Your task to perform on an android device: empty trash in the gmail app Image 0: 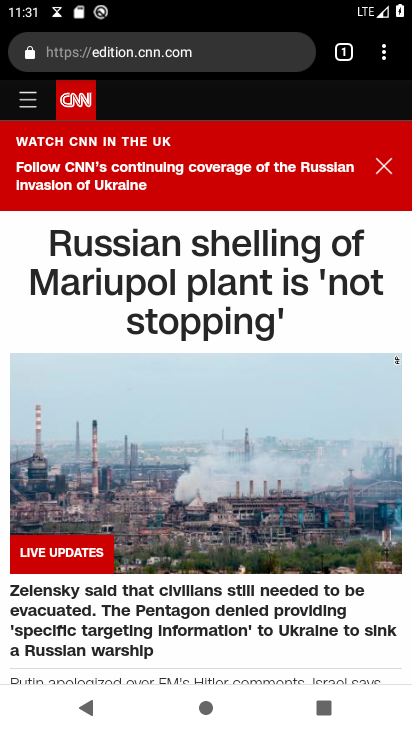
Step 0: press home button
Your task to perform on an android device: empty trash in the gmail app Image 1: 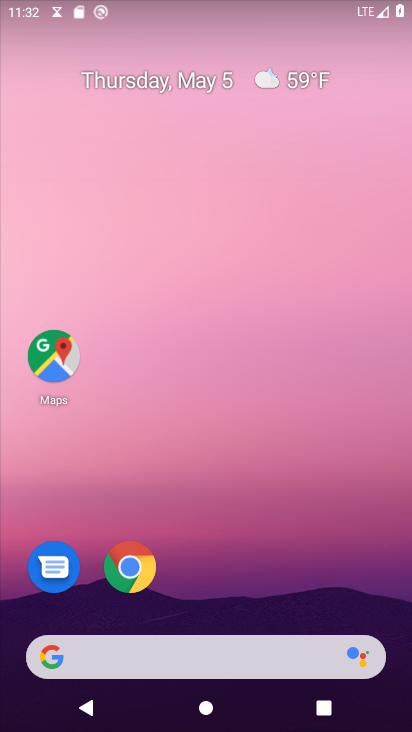
Step 1: drag from (305, 608) to (303, 2)
Your task to perform on an android device: empty trash in the gmail app Image 2: 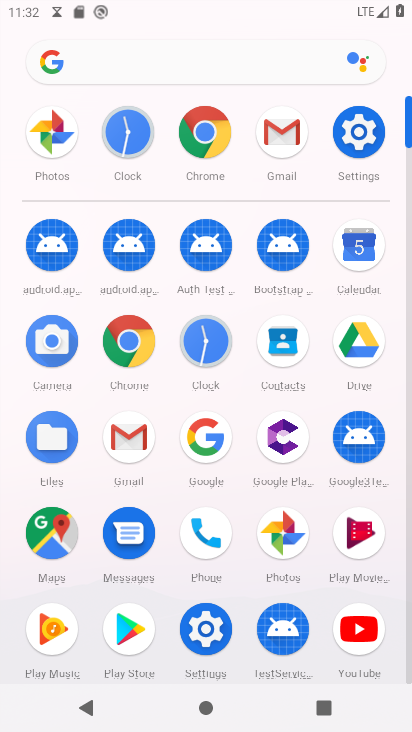
Step 2: click (286, 136)
Your task to perform on an android device: empty trash in the gmail app Image 3: 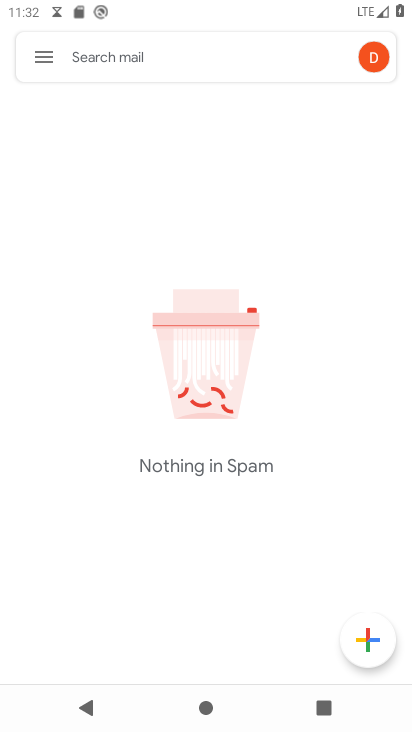
Step 3: click (45, 58)
Your task to perform on an android device: empty trash in the gmail app Image 4: 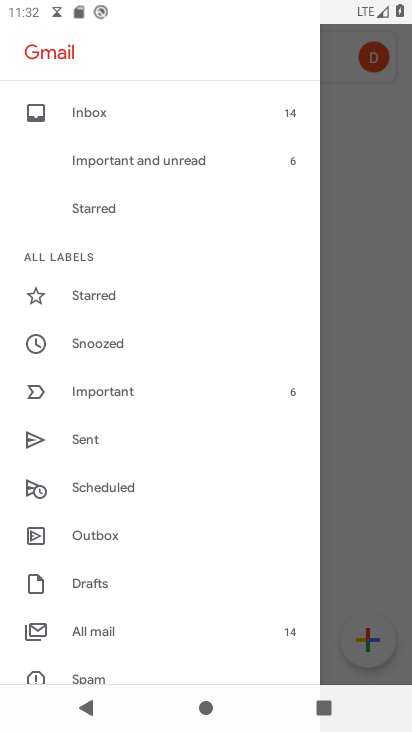
Step 4: drag from (173, 621) to (182, 381)
Your task to perform on an android device: empty trash in the gmail app Image 5: 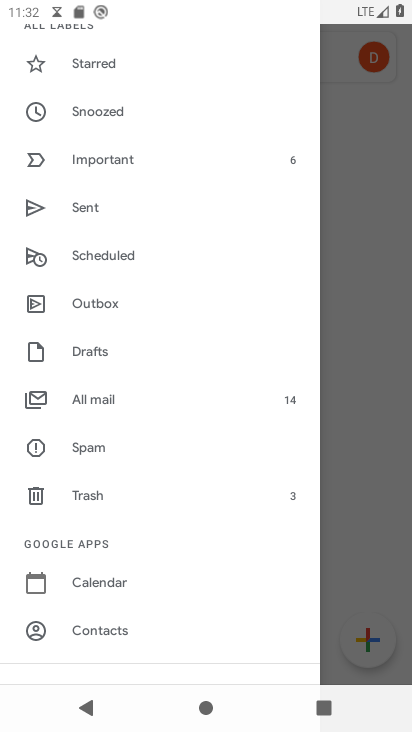
Step 5: click (96, 498)
Your task to perform on an android device: empty trash in the gmail app Image 6: 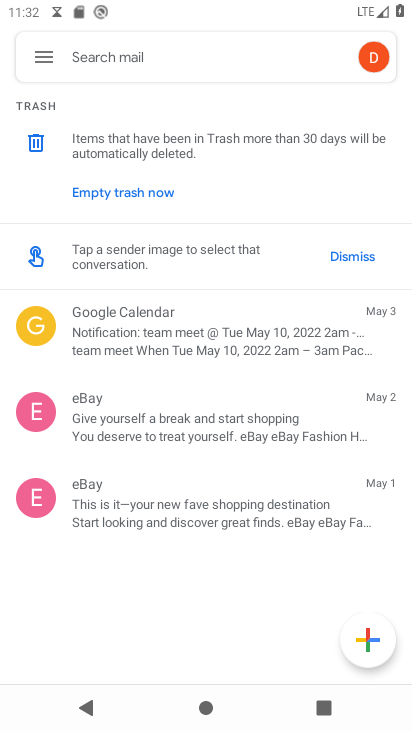
Step 6: click (96, 193)
Your task to perform on an android device: empty trash in the gmail app Image 7: 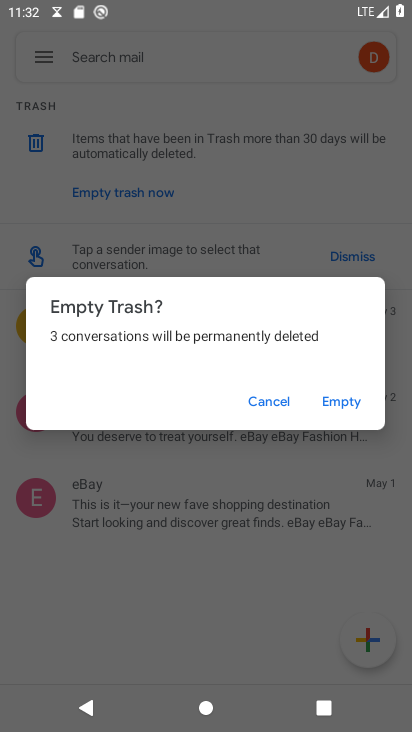
Step 7: click (347, 402)
Your task to perform on an android device: empty trash in the gmail app Image 8: 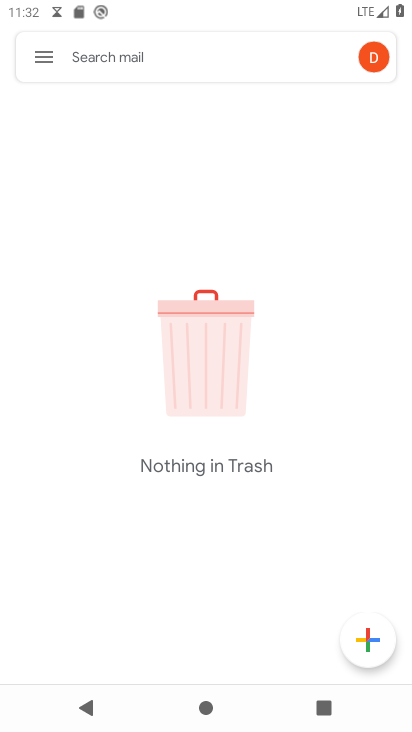
Step 8: task complete